Your task to perform on an android device: View the shopping cart on ebay.com. Image 0: 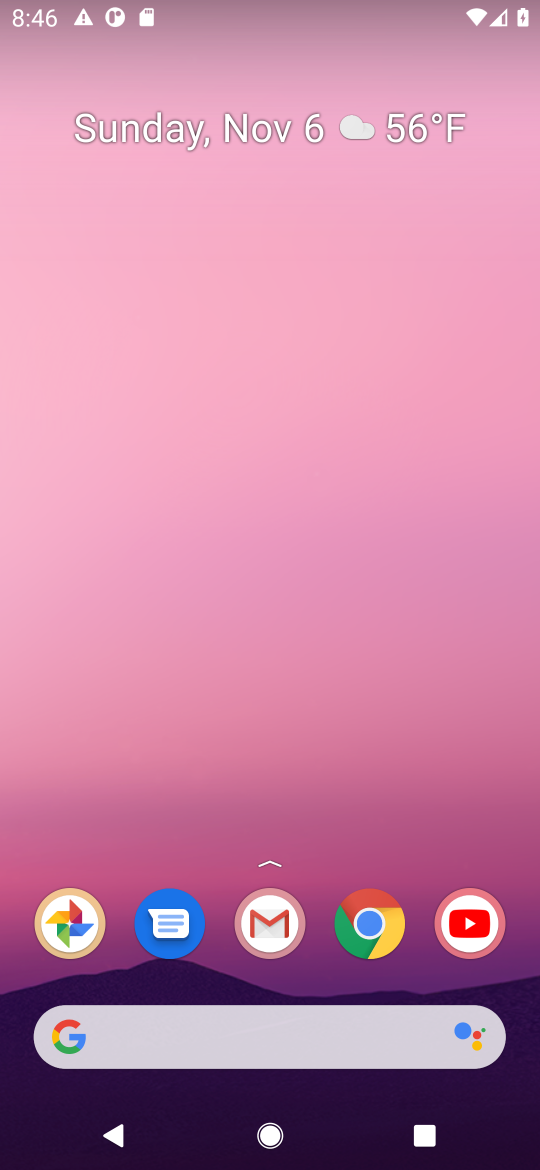
Step 0: click (380, 934)
Your task to perform on an android device: View the shopping cart on ebay.com. Image 1: 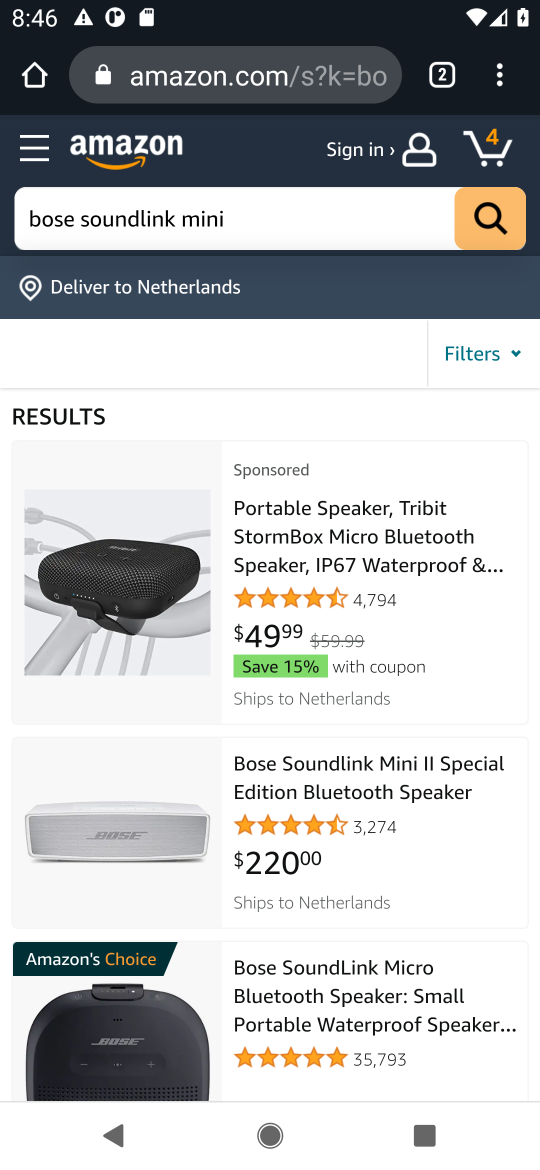
Step 1: click (191, 94)
Your task to perform on an android device: View the shopping cart on ebay.com. Image 2: 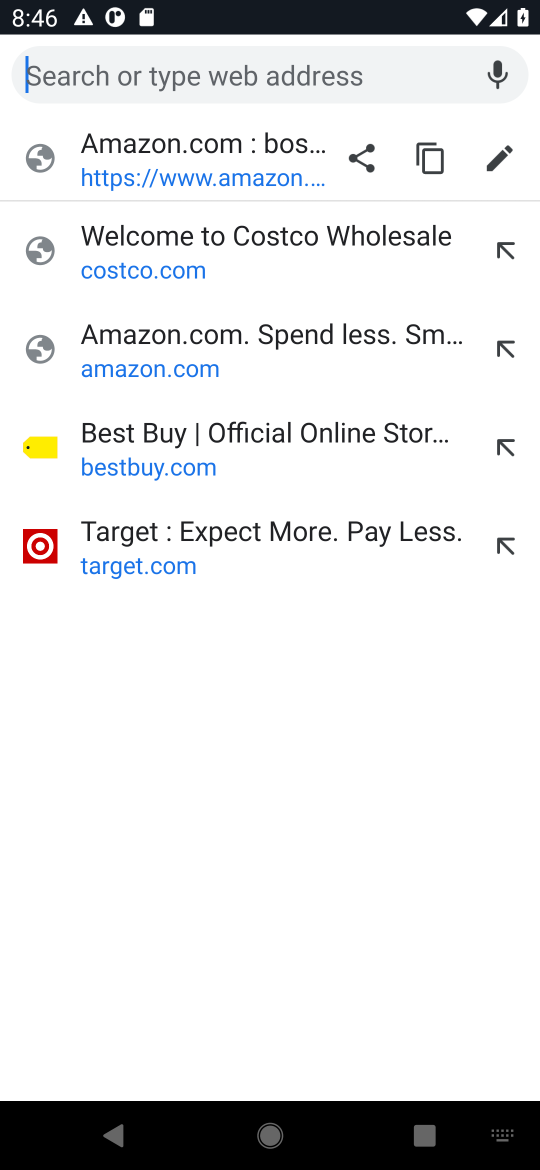
Step 2: type "ebay.com"
Your task to perform on an android device: View the shopping cart on ebay.com. Image 3: 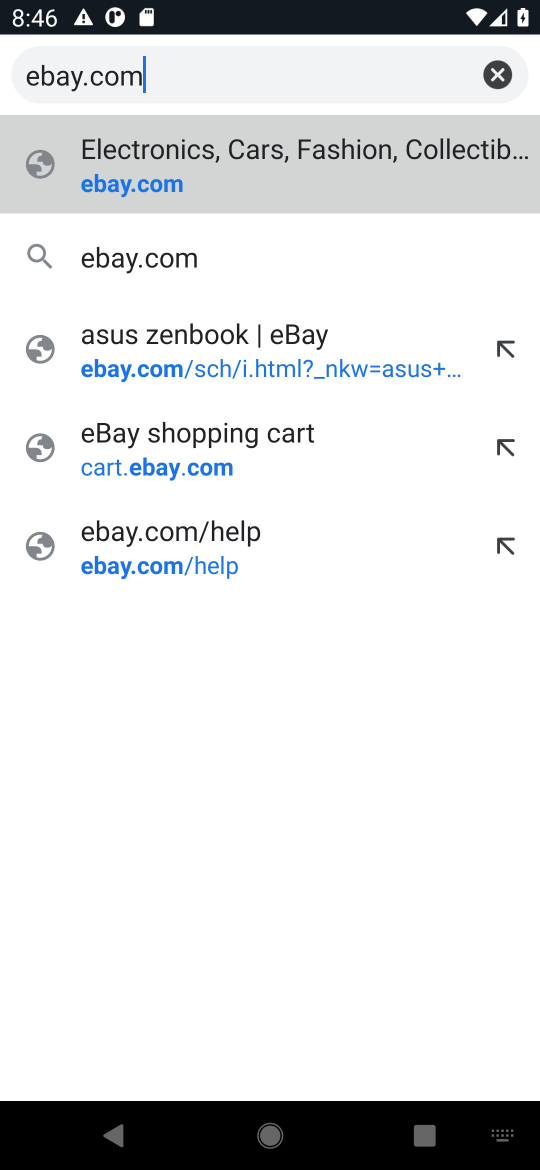
Step 3: click (125, 200)
Your task to perform on an android device: View the shopping cart on ebay.com. Image 4: 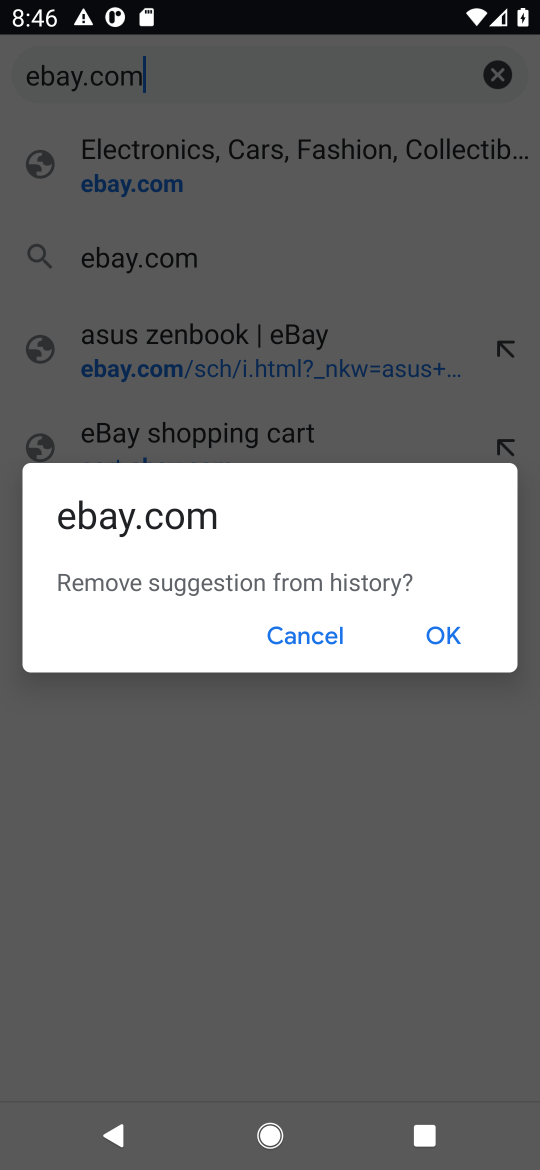
Step 4: click (302, 647)
Your task to perform on an android device: View the shopping cart on ebay.com. Image 5: 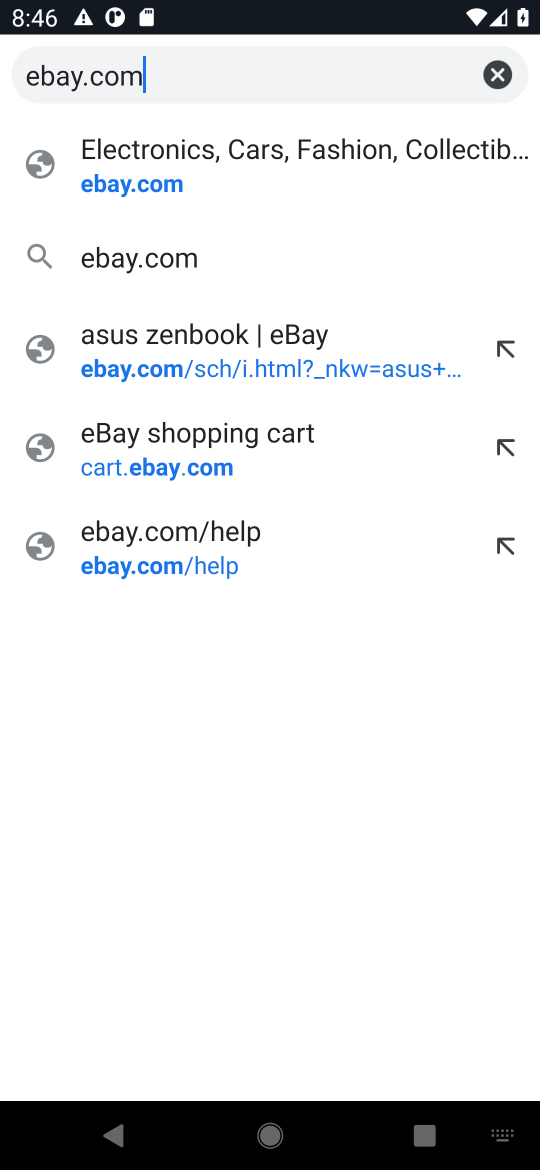
Step 5: click (152, 180)
Your task to perform on an android device: View the shopping cart on ebay.com. Image 6: 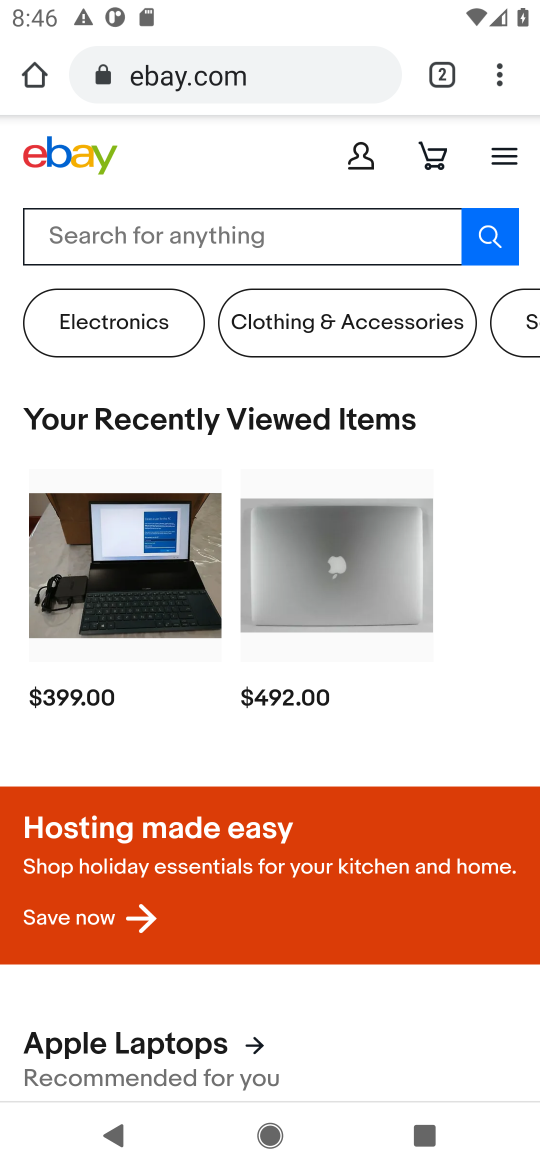
Step 6: click (428, 163)
Your task to perform on an android device: View the shopping cart on ebay.com. Image 7: 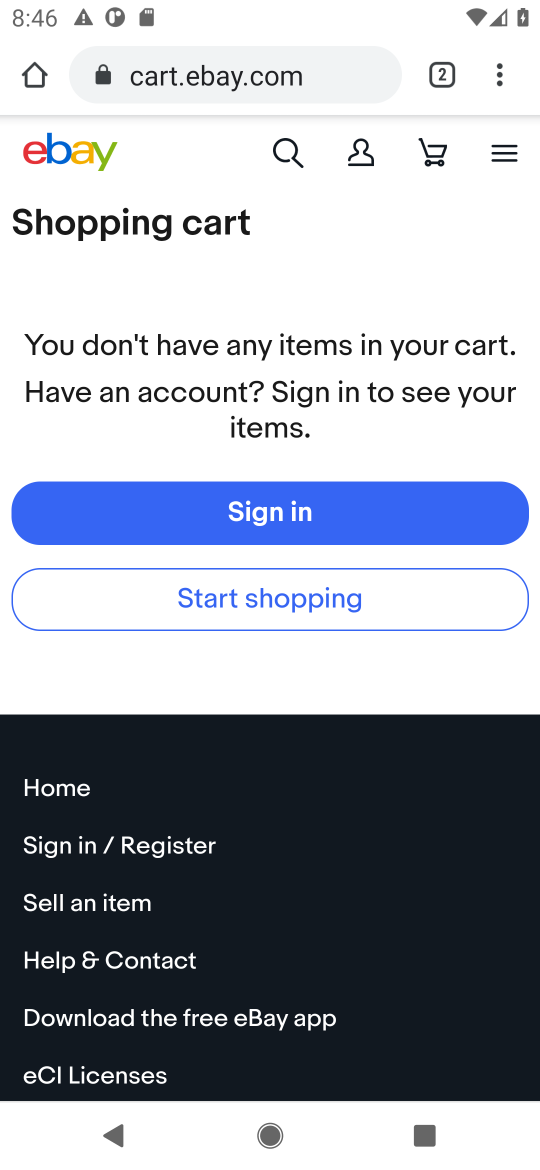
Step 7: task complete